Your task to perform on an android device: Open Chrome and go to settings Image 0: 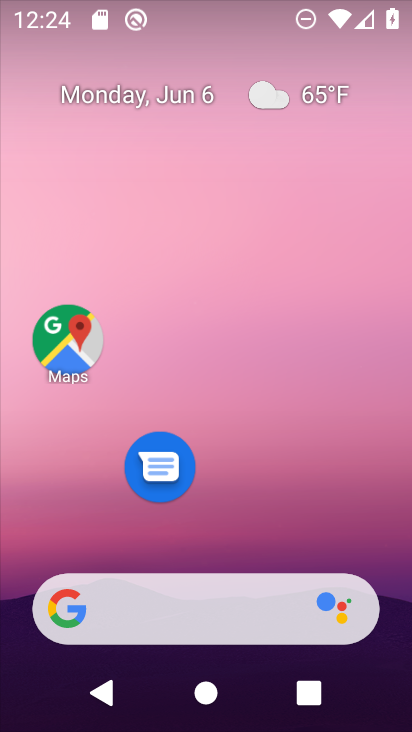
Step 0: press home button
Your task to perform on an android device: Open Chrome and go to settings Image 1: 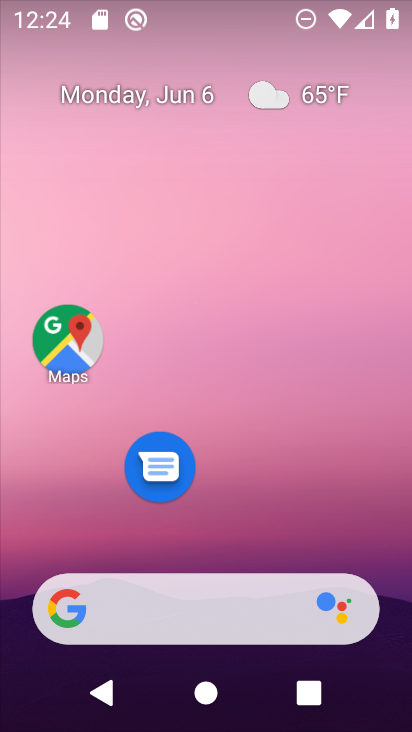
Step 1: drag from (313, 567) to (388, 85)
Your task to perform on an android device: Open Chrome and go to settings Image 2: 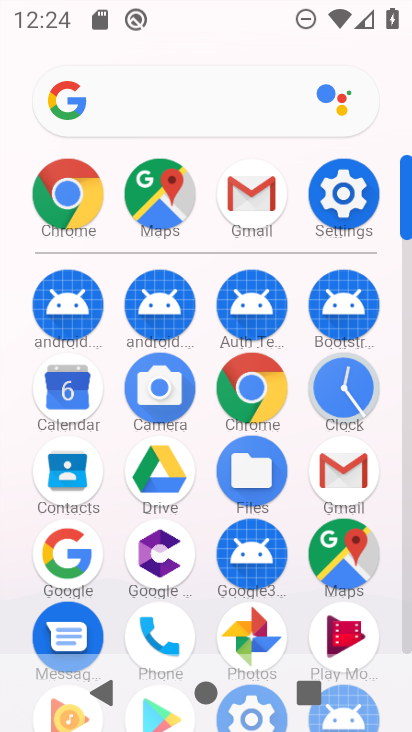
Step 2: click (68, 191)
Your task to perform on an android device: Open Chrome and go to settings Image 3: 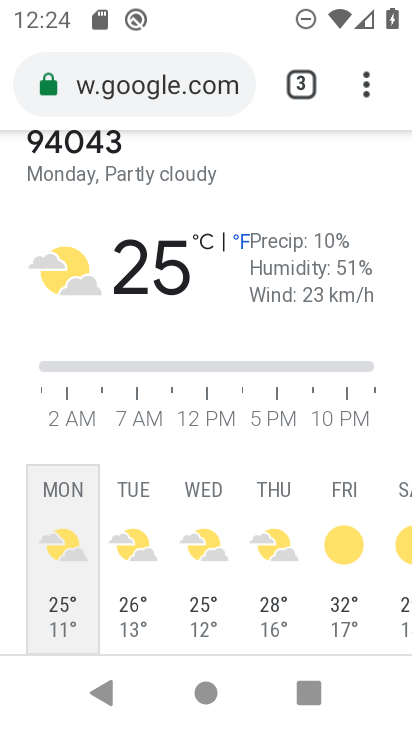
Step 3: task complete